Your task to perform on an android device: allow notifications from all sites in the chrome app Image 0: 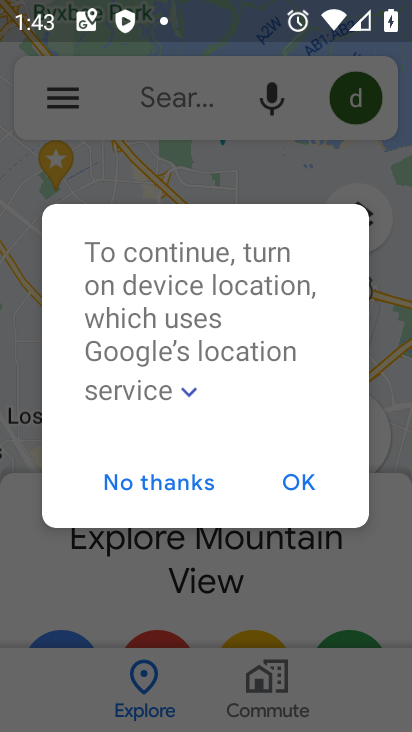
Step 0: press home button
Your task to perform on an android device: allow notifications from all sites in the chrome app Image 1: 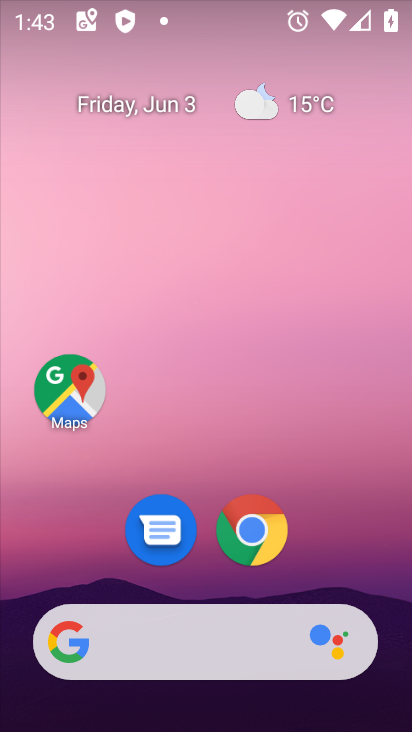
Step 1: drag from (357, 265) to (357, 229)
Your task to perform on an android device: allow notifications from all sites in the chrome app Image 2: 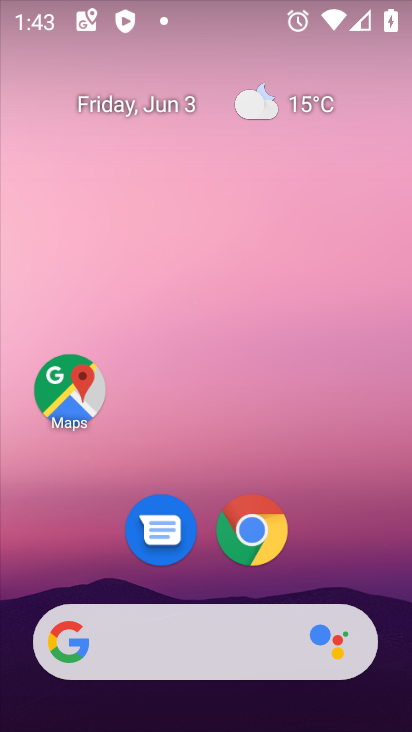
Step 2: drag from (336, 561) to (299, 214)
Your task to perform on an android device: allow notifications from all sites in the chrome app Image 3: 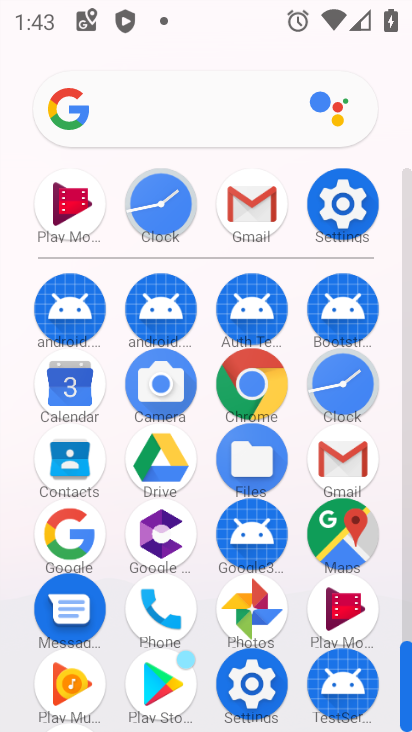
Step 3: click (251, 370)
Your task to perform on an android device: allow notifications from all sites in the chrome app Image 4: 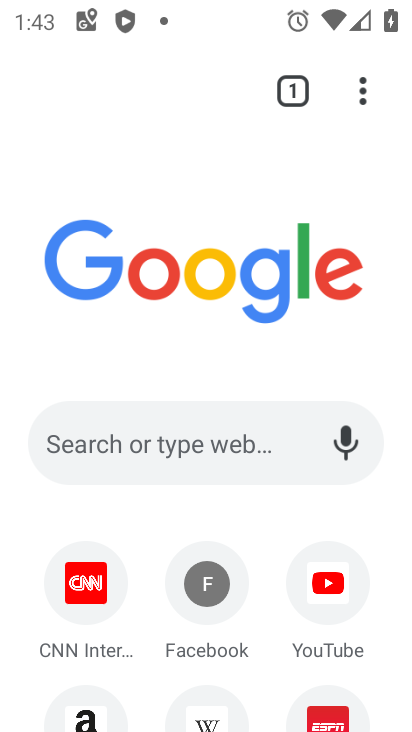
Step 4: drag from (359, 94) to (229, 544)
Your task to perform on an android device: allow notifications from all sites in the chrome app Image 5: 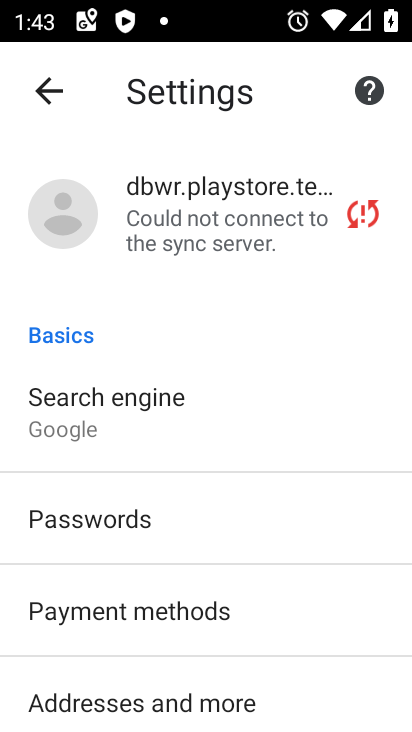
Step 5: drag from (306, 408) to (284, 135)
Your task to perform on an android device: allow notifications from all sites in the chrome app Image 6: 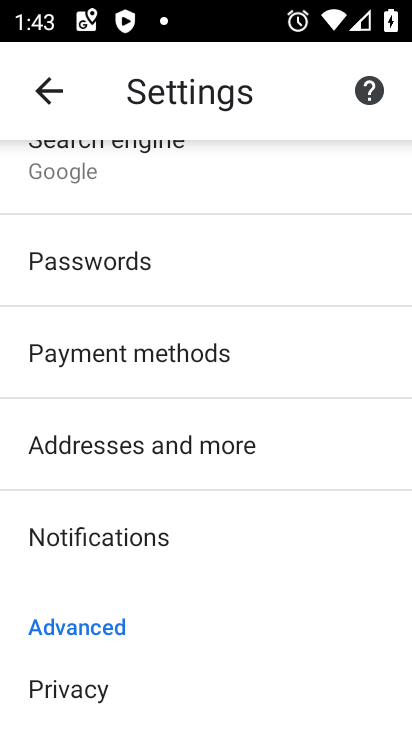
Step 6: click (176, 526)
Your task to perform on an android device: allow notifications from all sites in the chrome app Image 7: 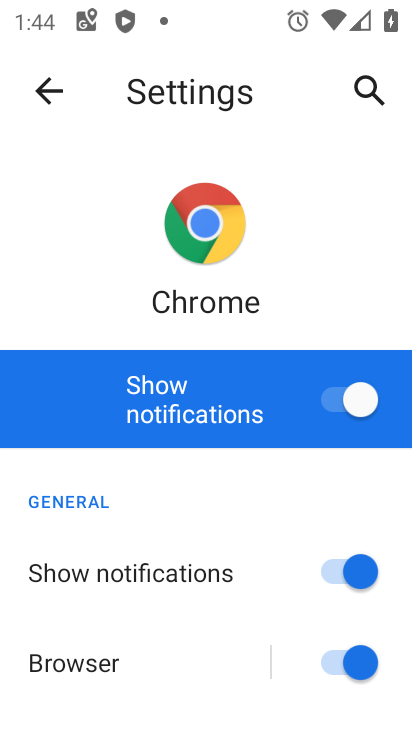
Step 7: task complete